Your task to perform on an android device: When is my next meeting? Image 0: 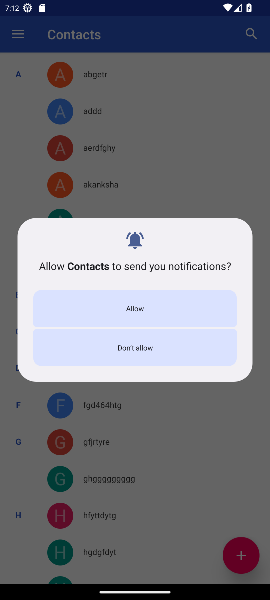
Step 0: click (165, 147)
Your task to perform on an android device: When is my next meeting? Image 1: 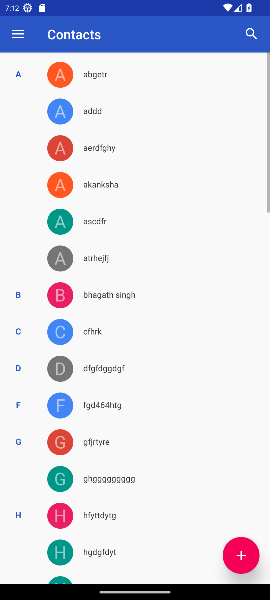
Step 1: click (138, 316)
Your task to perform on an android device: When is my next meeting? Image 2: 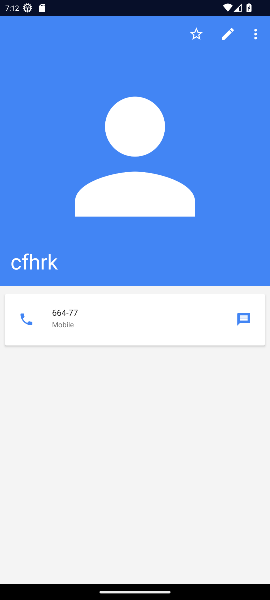
Step 2: task complete